Your task to perform on an android device: open app "VLC for Android" (install if not already installed) Image 0: 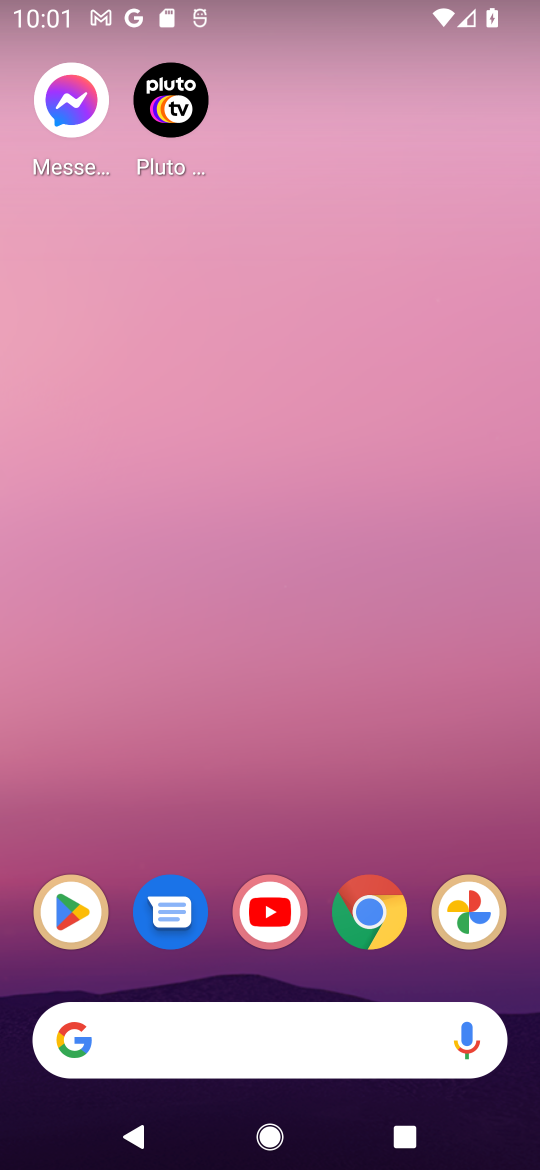
Step 0: drag from (221, 936) to (291, 514)
Your task to perform on an android device: open app "VLC for Android" (install if not already installed) Image 1: 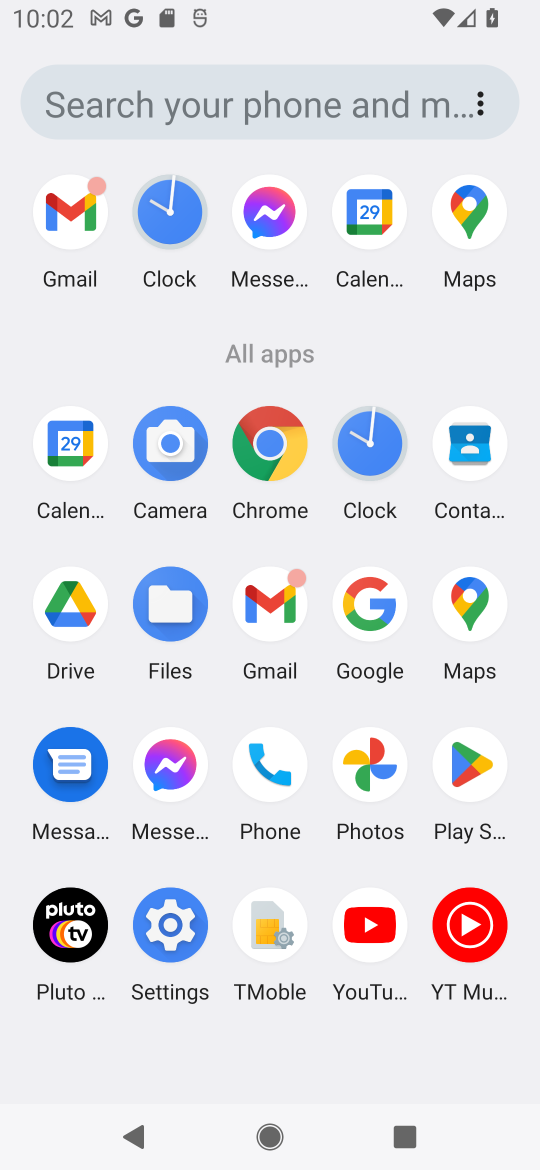
Step 1: click (467, 764)
Your task to perform on an android device: open app "VLC for Android" (install if not already installed) Image 2: 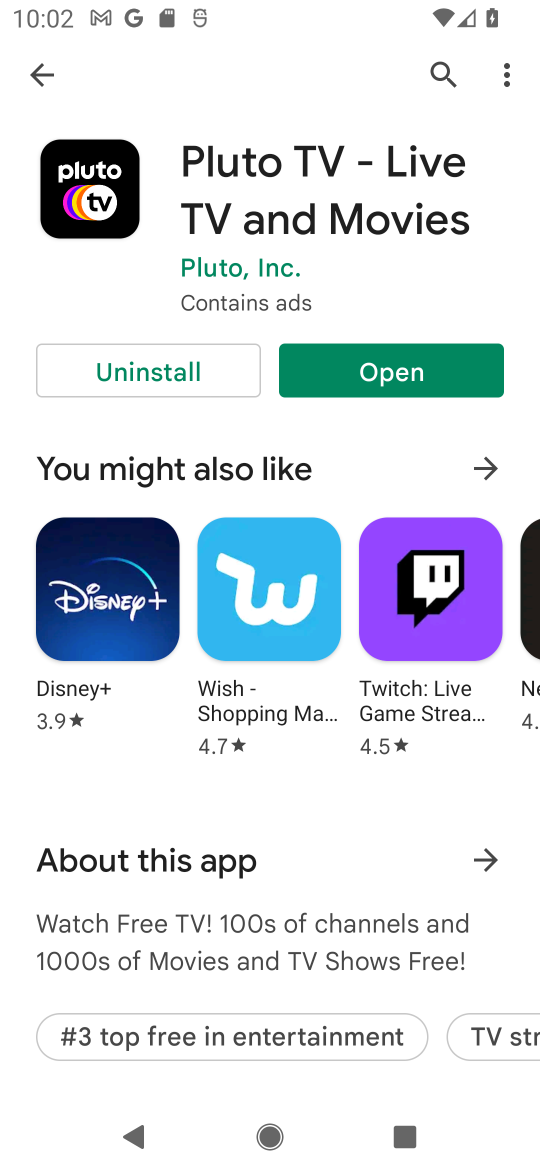
Step 2: click (92, 65)
Your task to perform on an android device: open app "VLC for Android" (install if not already installed) Image 3: 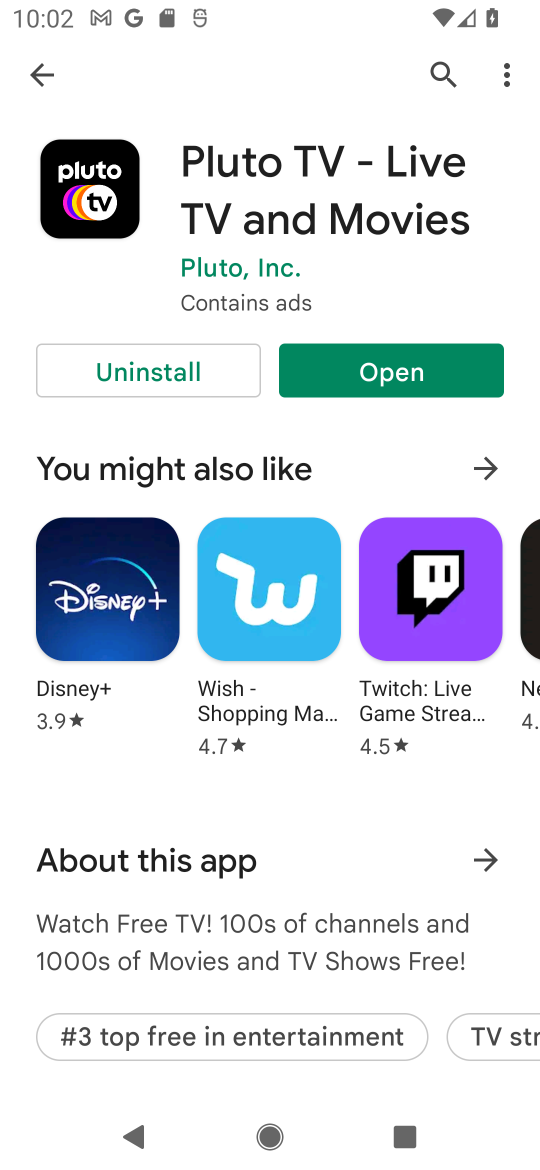
Step 3: click (37, 72)
Your task to perform on an android device: open app "VLC for Android" (install if not already installed) Image 4: 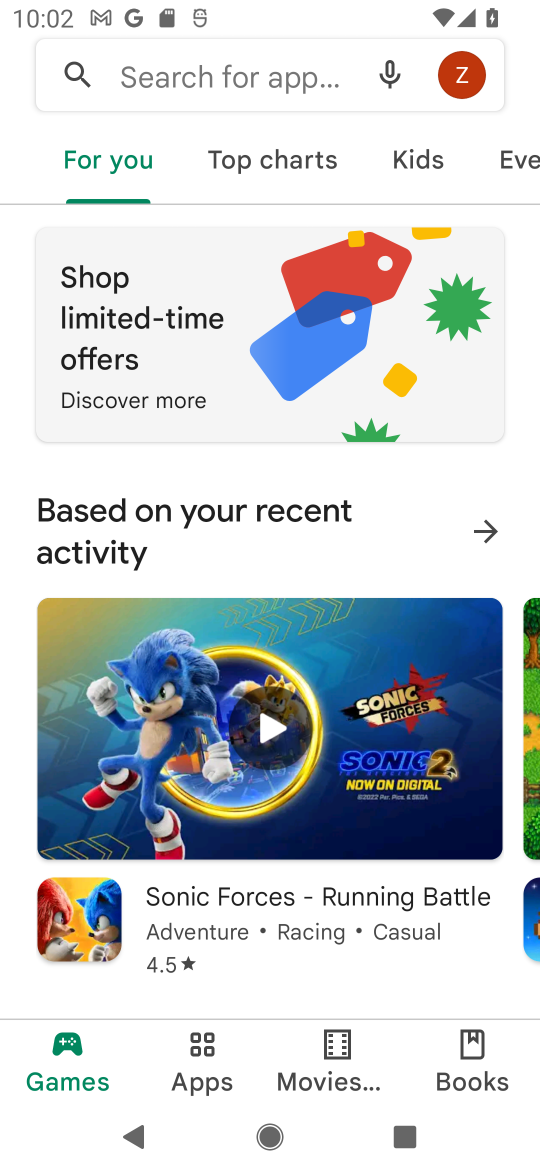
Step 4: click (177, 74)
Your task to perform on an android device: open app "VLC for Android" (install if not already installed) Image 5: 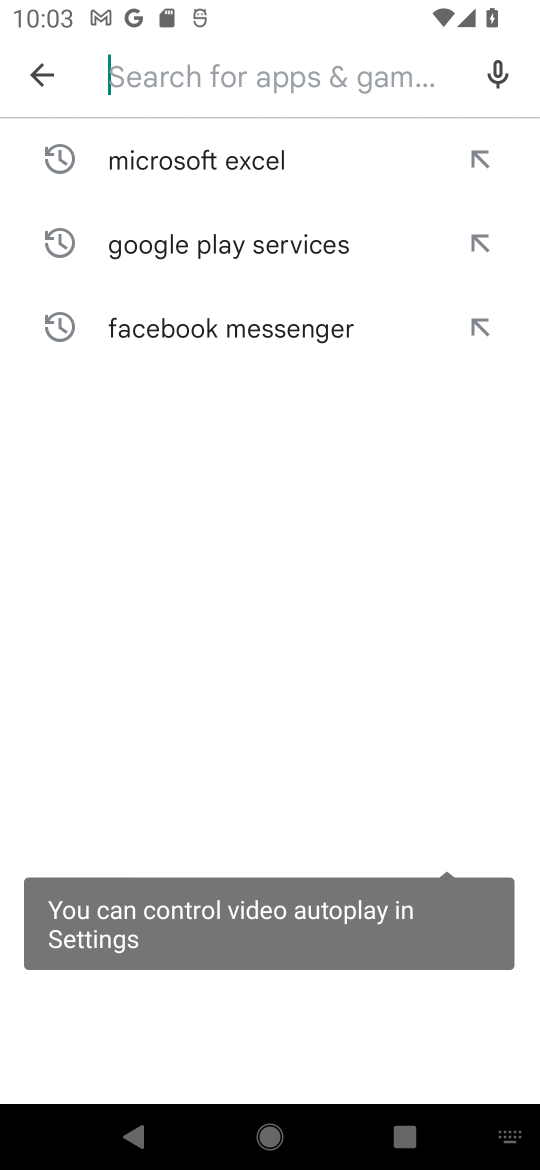
Step 5: type "VLC for Android"
Your task to perform on an android device: open app "VLC for Android" (install if not already installed) Image 6: 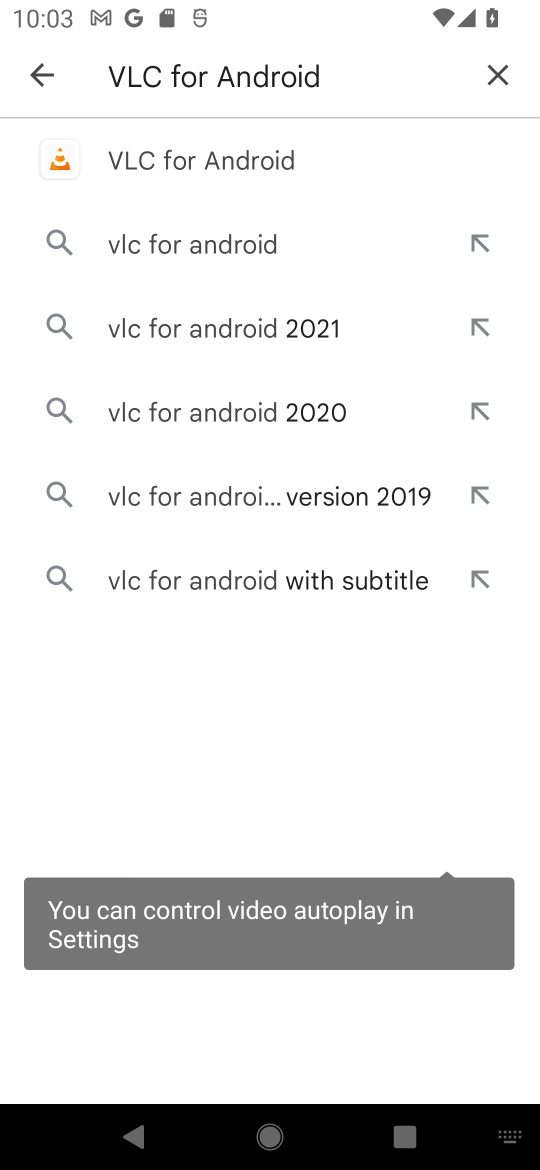
Step 6: click (248, 163)
Your task to perform on an android device: open app "VLC for Android" (install if not already installed) Image 7: 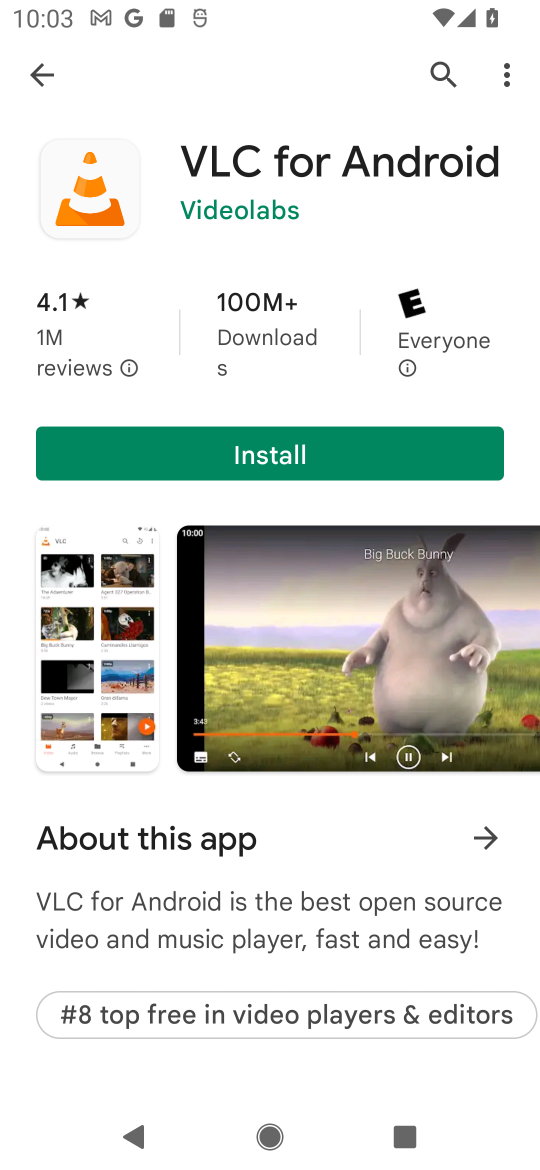
Step 7: click (266, 465)
Your task to perform on an android device: open app "VLC for Android" (install if not already installed) Image 8: 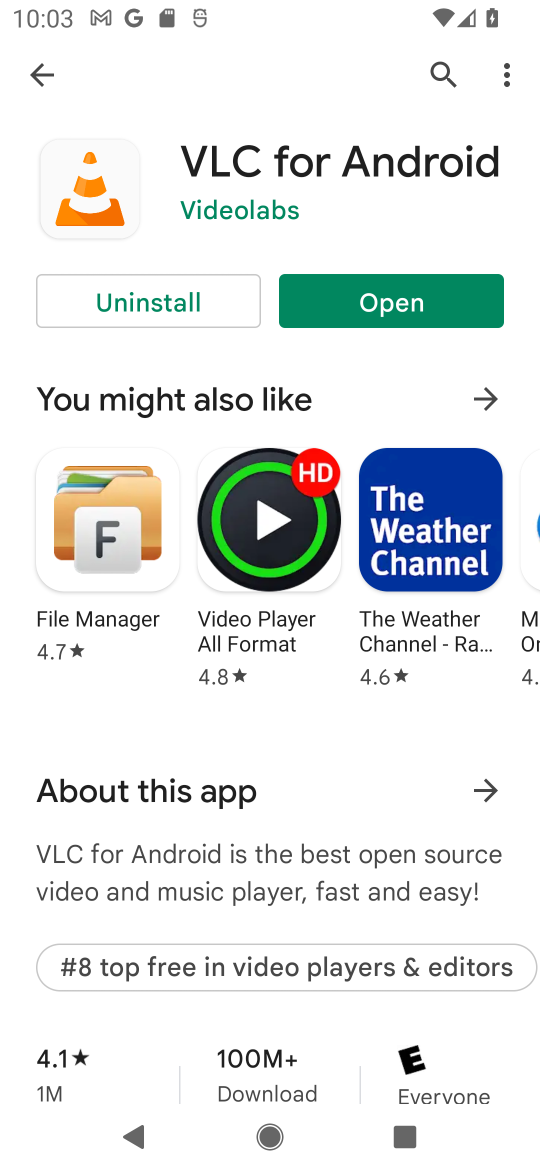
Step 8: click (372, 302)
Your task to perform on an android device: open app "VLC for Android" (install if not already installed) Image 9: 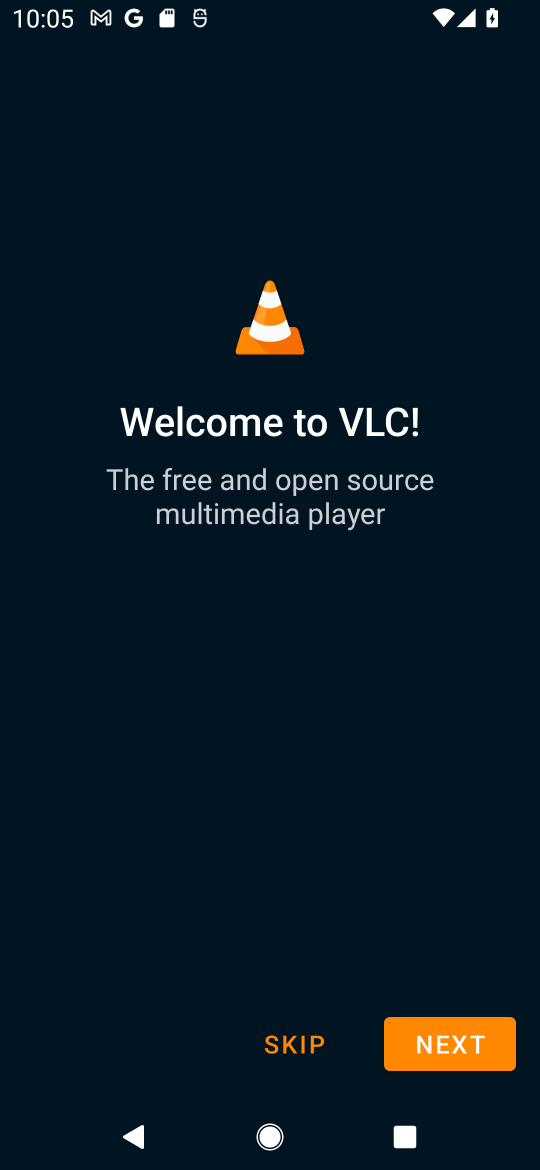
Step 9: task complete